Your task to perform on an android device: turn on translation in the chrome app Image 0: 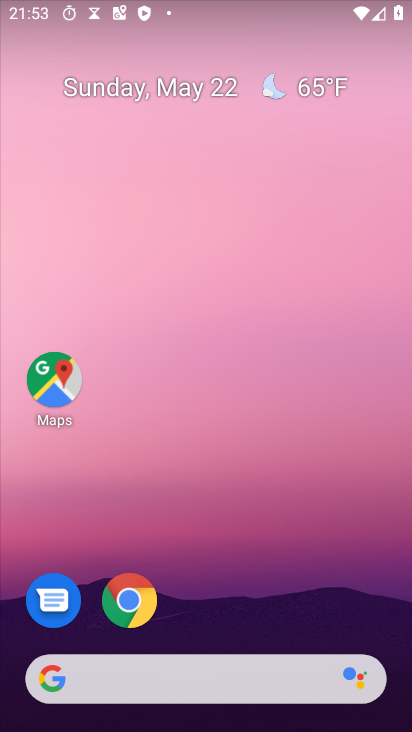
Step 0: drag from (250, 627) to (219, 156)
Your task to perform on an android device: turn on translation in the chrome app Image 1: 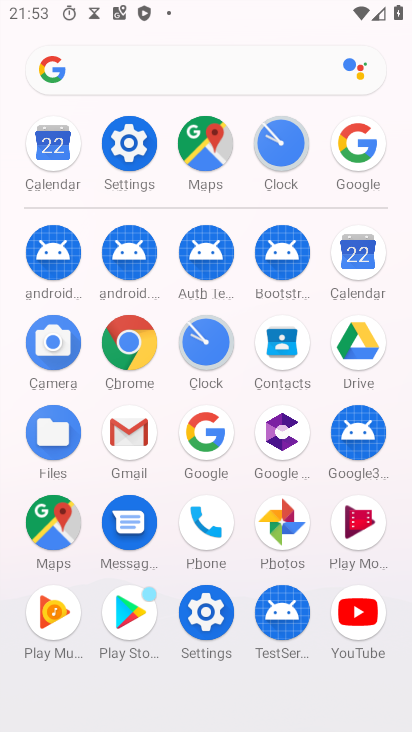
Step 1: click (135, 380)
Your task to perform on an android device: turn on translation in the chrome app Image 2: 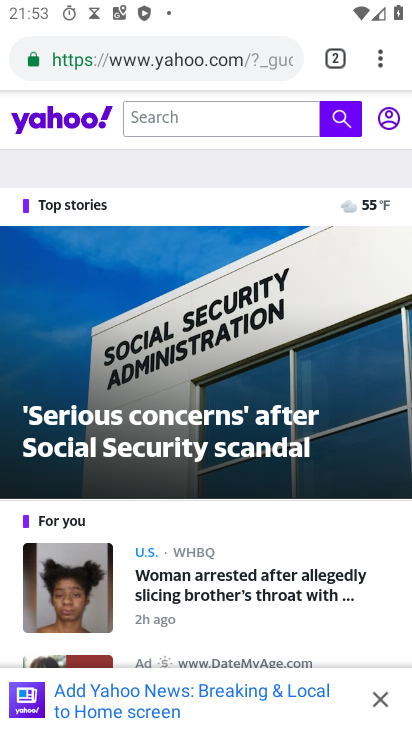
Step 2: click (378, 63)
Your task to perform on an android device: turn on translation in the chrome app Image 3: 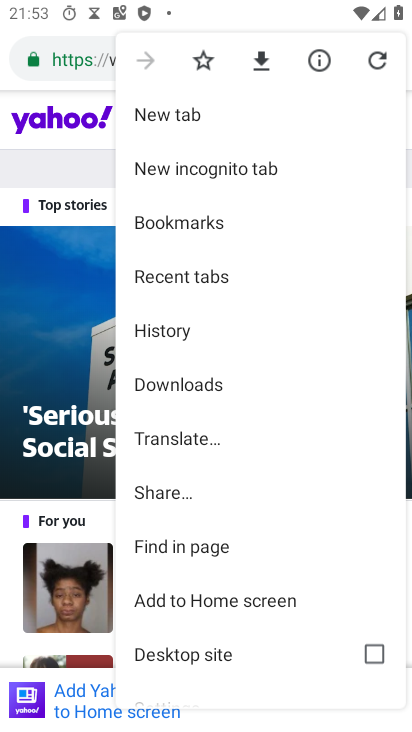
Step 3: drag from (234, 628) to (225, 409)
Your task to perform on an android device: turn on translation in the chrome app Image 4: 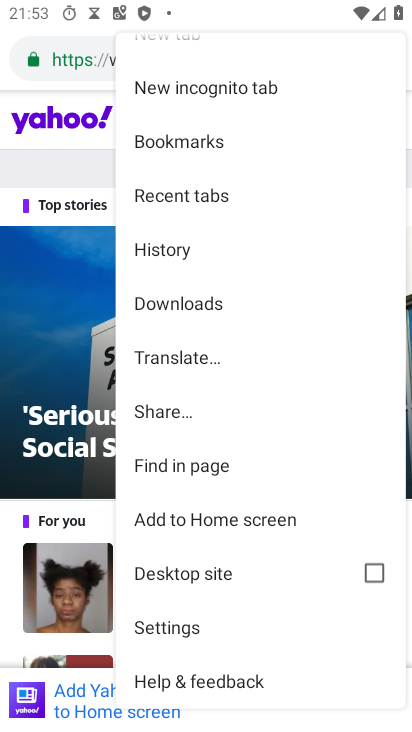
Step 4: click (187, 631)
Your task to perform on an android device: turn on translation in the chrome app Image 5: 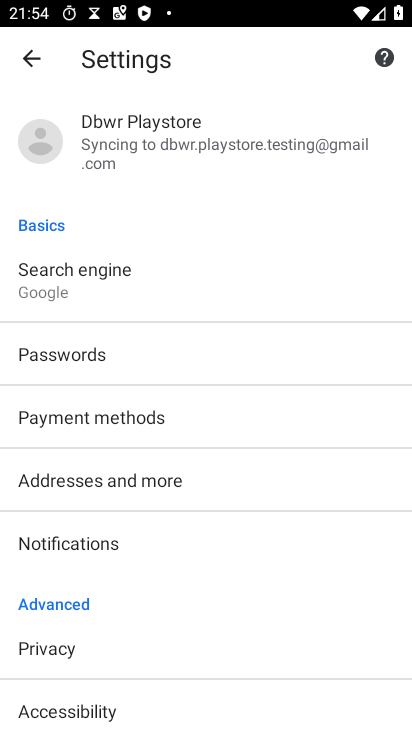
Step 5: drag from (151, 641) to (167, 432)
Your task to perform on an android device: turn on translation in the chrome app Image 6: 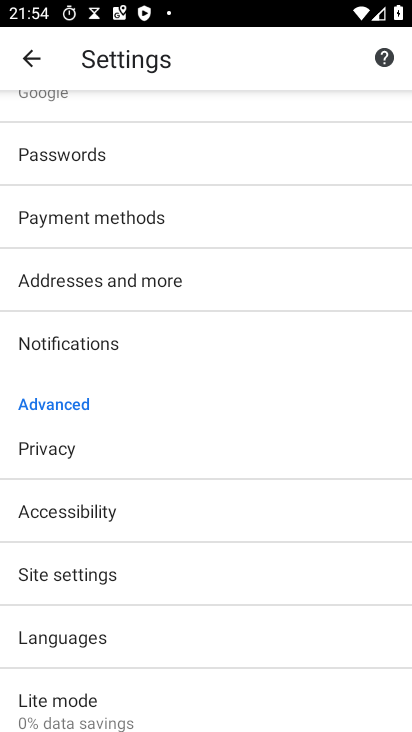
Step 6: click (131, 631)
Your task to perform on an android device: turn on translation in the chrome app Image 7: 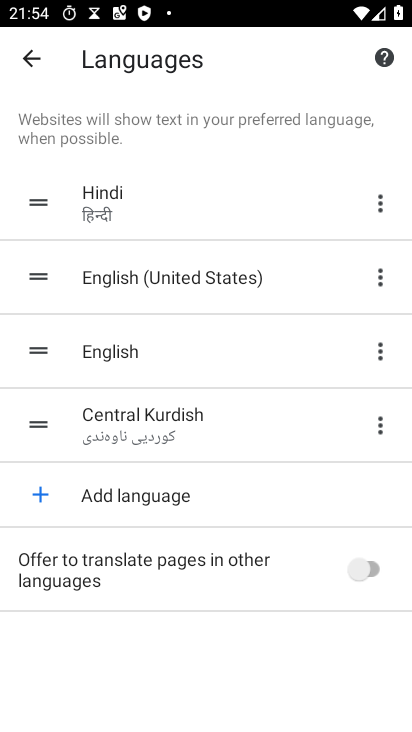
Step 7: click (366, 571)
Your task to perform on an android device: turn on translation in the chrome app Image 8: 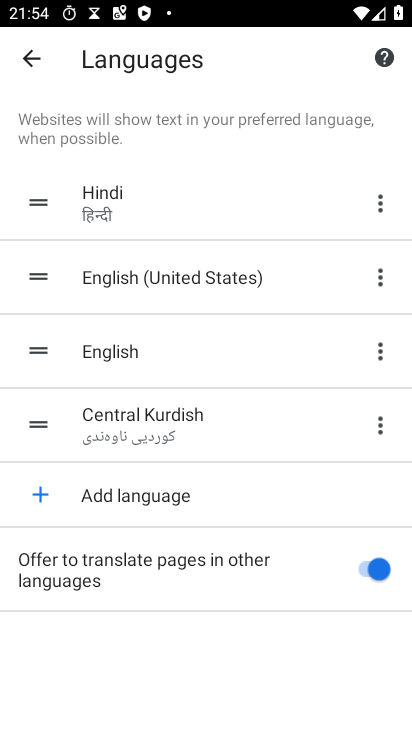
Step 8: task complete